Your task to perform on an android device: move a message to another label in the gmail app Image 0: 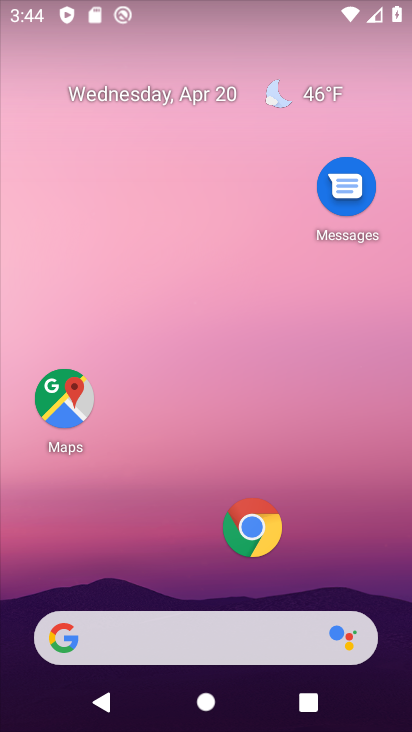
Step 0: drag from (172, 648) to (345, 82)
Your task to perform on an android device: move a message to another label in the gmail app Image 1: 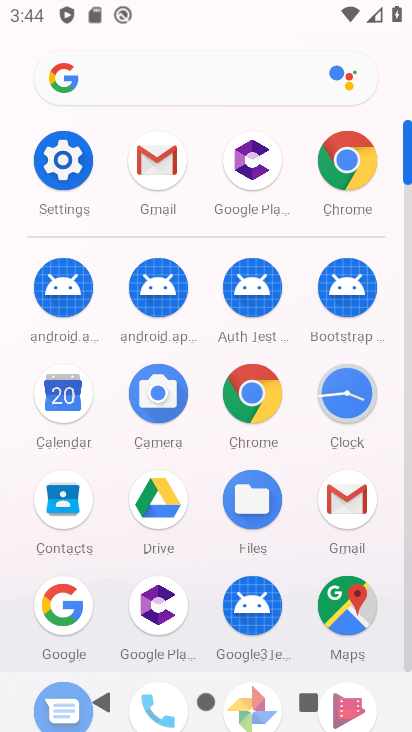
Step 1: click (165, 174)
Your task to perform on an android device: move a message to another label in the gmail app Image 2: 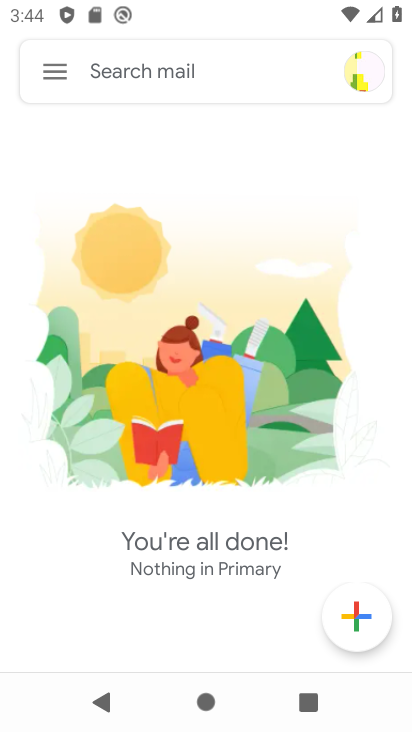
Step 2: task complete